Your task to perform on an android device: Open Google Maps Image 0: 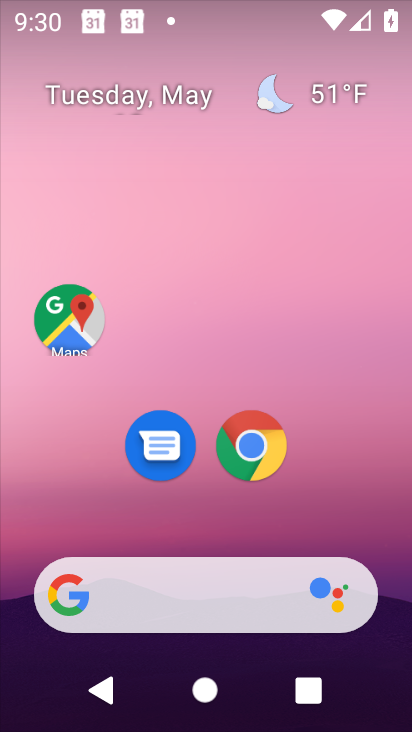
Step 0: click (71, 322)
Your task to perform on an android device: Open Google Maps Image 1: 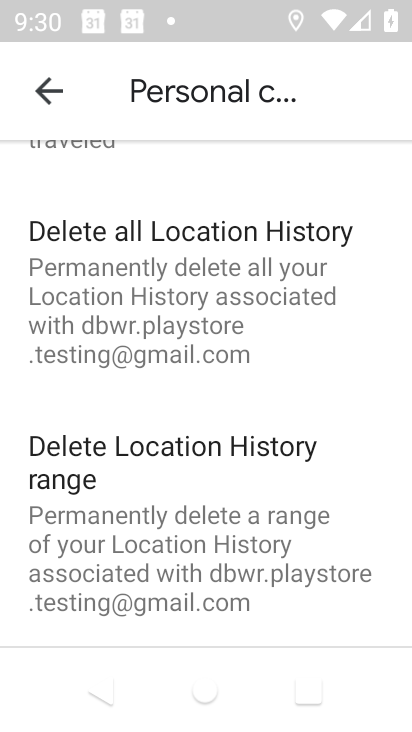
Step 1: click (45, 105)
Your task to perform on an android device: Open Google Maps Image 2: 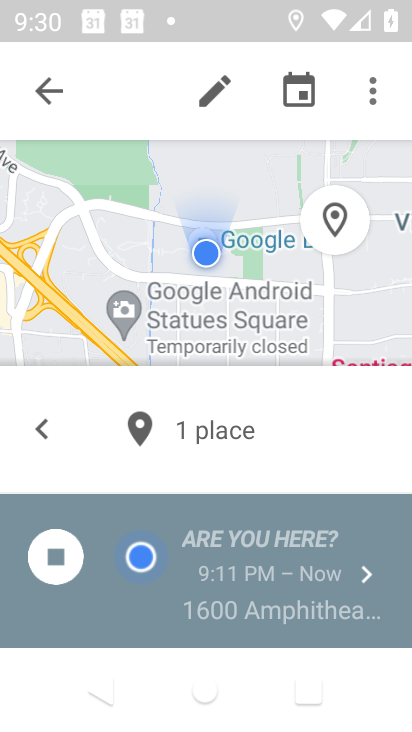
Step 2: click (45, 105)
Your task to perform on an android device: Open Google Maps Image 3: 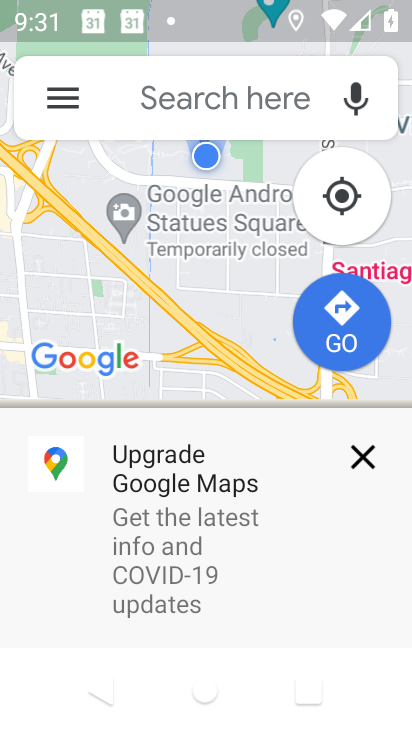
Step 3: task complete